Your task to perform on an android device: remove spam from my inbox in the gmail app Image 0: 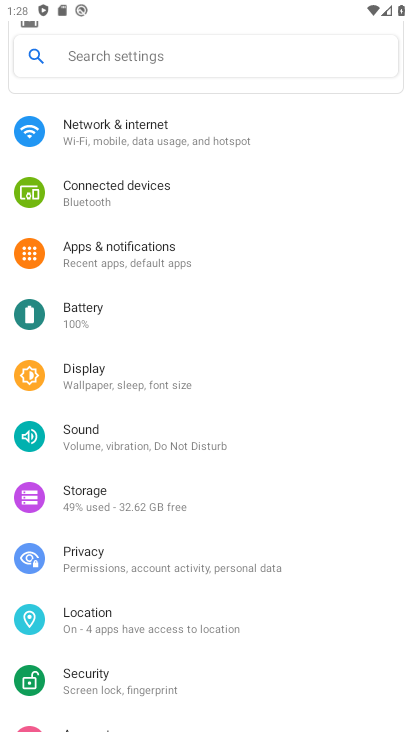
Step 0: press home button
Your task to perform on an android device: remove spam from my inbox in the gmail app Image 1: 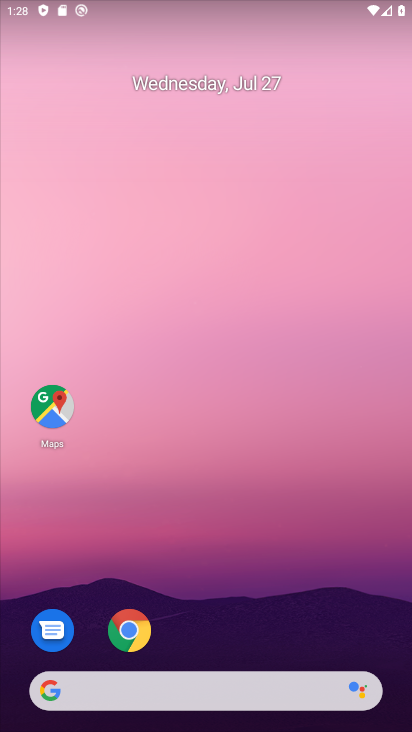
Step 1: drag from (385, 647) to (327, 229)
Your task to perform on an android device: remove spam from my inbox in the gmail app Image 2: 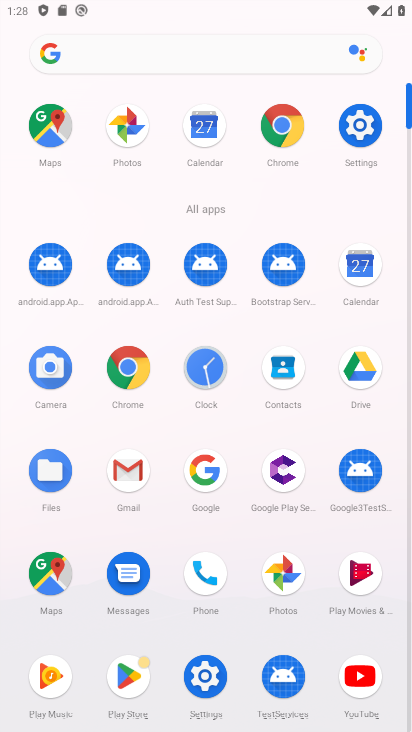
Step 2: click (128, 472)
Your task to perform on an android device: remove spam from my inbox in the gmail app Image 3: 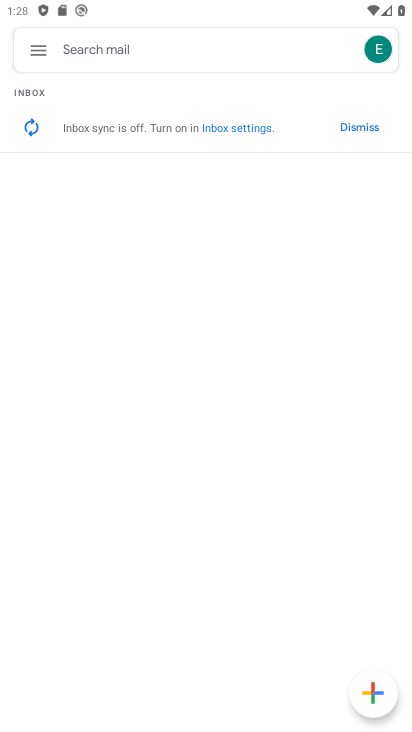
Step 3: click (39, 52)
Your task to perform on an android device: remove spam from my inbox in the gmail app Image 4: 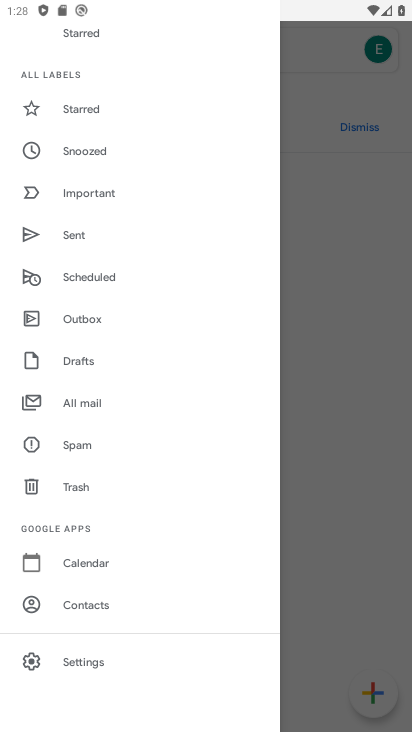
Step 4: click (77, 449)
Your task to perform on an android device: remove spam from my inbox in the gmail app Image 5: 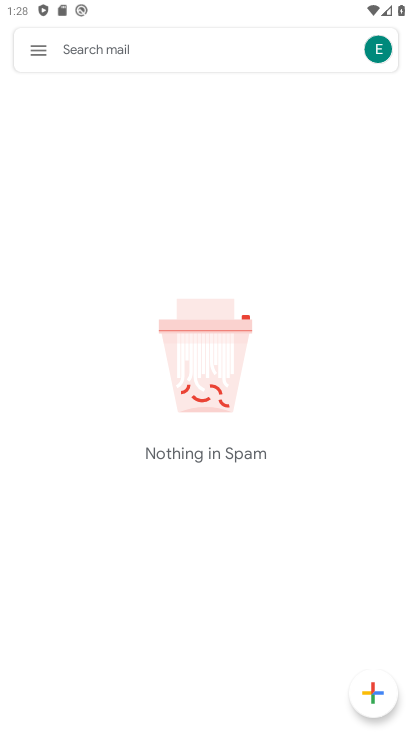
Step 5: task complete